Your task to perform on an android device: open app "Facebook Messenger" (install if not already installed) and enter user name: "divorce@inbox.com" and password: "caviar" Image 0: 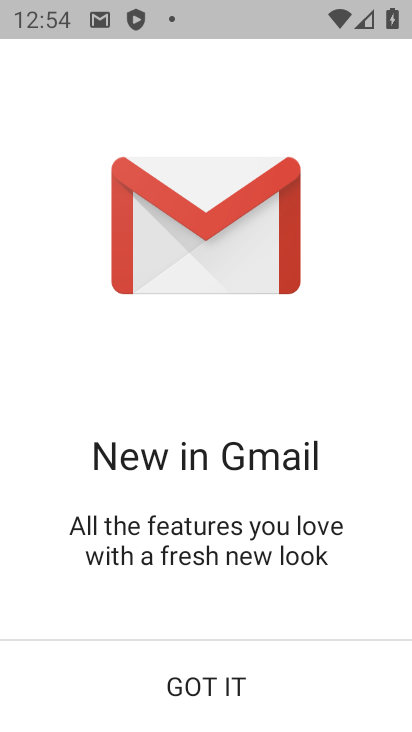
Step 0: press back button
Your task to perform on an android device: open app "Facebook Messenger" (install if not already installed) and enter user name: "divorce@inbox.com" and password: "caviar" Image 1: 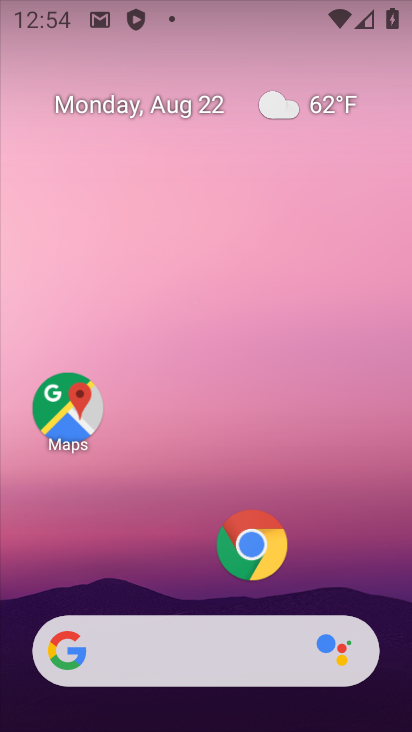
Step 1: drag from (161, 577) to (234, 107)
Your task to perform on an android device: open app "Facebook Messenger" (install if not already installed) and enter user name: "divorce@inbox.com" and password: "caviar" Image 2: 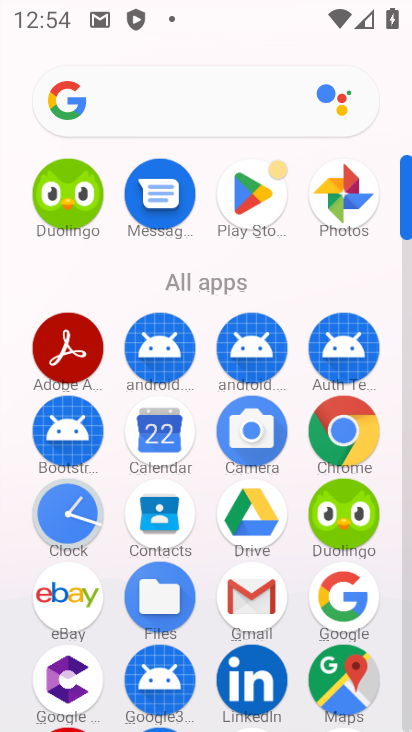
Step 2: click (258, 175)
Your task to perform on an android device: open app "Facebook Messenger" (install if not already installed) and enter user name: "divorce@inbox.com" and password: "caviar" Image 3: 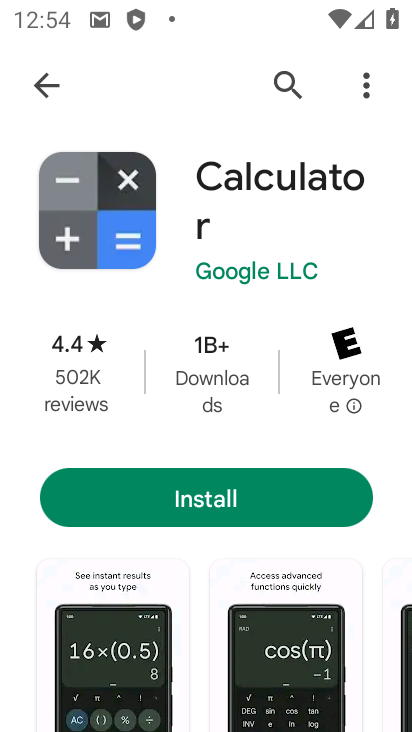
Step 3: click (293, 88)
Your task to perform on an android device: open app "Facebook Messenger" (install if not already installed) and enter user name: "divorce@inbox.com" and password: "caviar" Image 4: 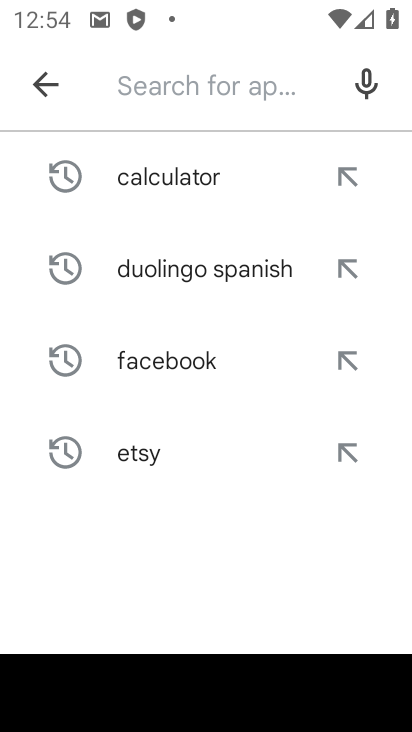
Step 4: click (168, 89)
Your task to perform on an android device: open app "Facebook Messenger" (install if not already installed) and enter user name: "divorce@inbox.com" and password: "caviar" Image 5: 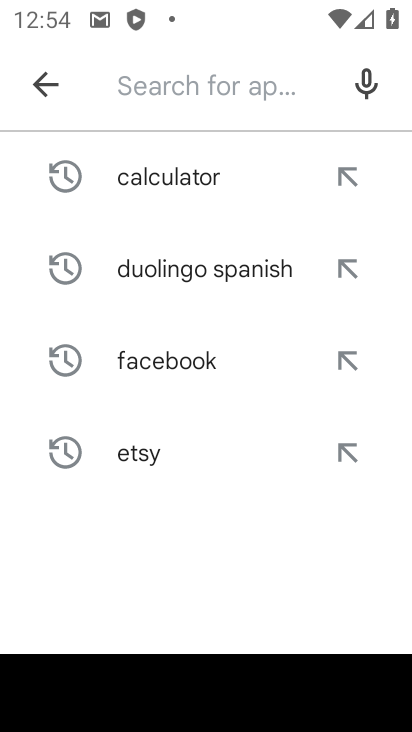
Step 5: type "Facebook Messenger"
Your task to perform on an android device: open app "Facebook Messenger" (install if not already installed) and enter user name: "divorce@inbox.com" and password: "caviar" Image 6: 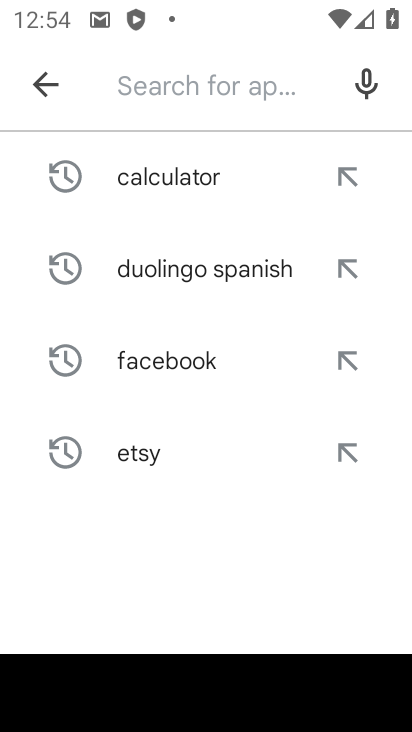
Step 6: click (134, 611)
Your task to perform on an android device: open app "Facebook Messenger" (install if not already installed) and enter user name: "divorce@inbox.com" and password: "caviar" Image 7: 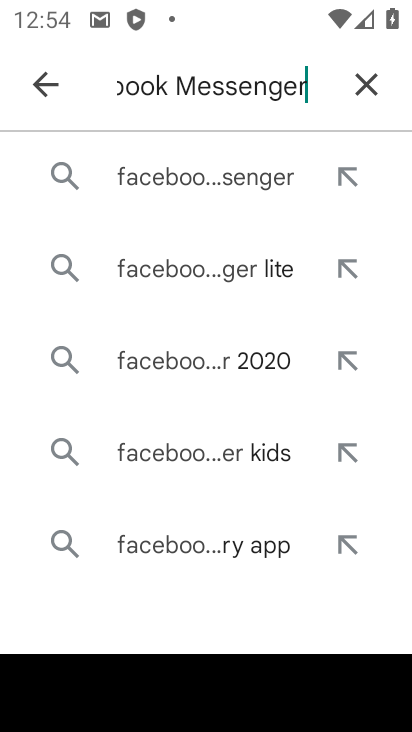
Step 7: click (182, 165)
Your task to perform on an android device: open app "Facebook Messenger" (install if not already installed) and enter user name: "divorce@inbox.com" and password: "caviar" Image 8: 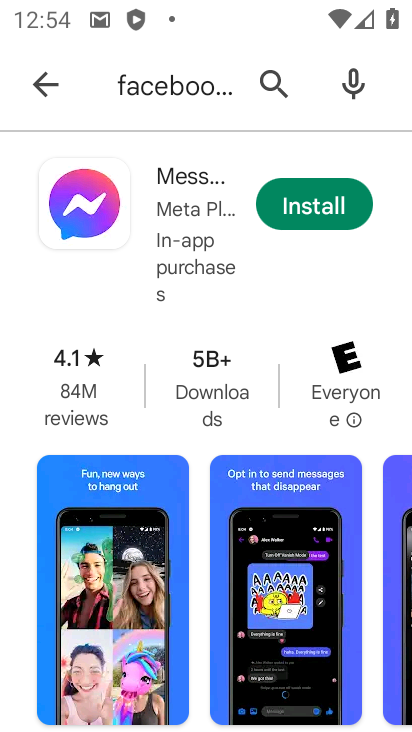
Step 8: click (347, 213)
Your task to perform on an android device: open app "Facebook Messenger" (install if not already installed) and enter user name: "divorce@inbox.com" and password: "caviar" Image 9: 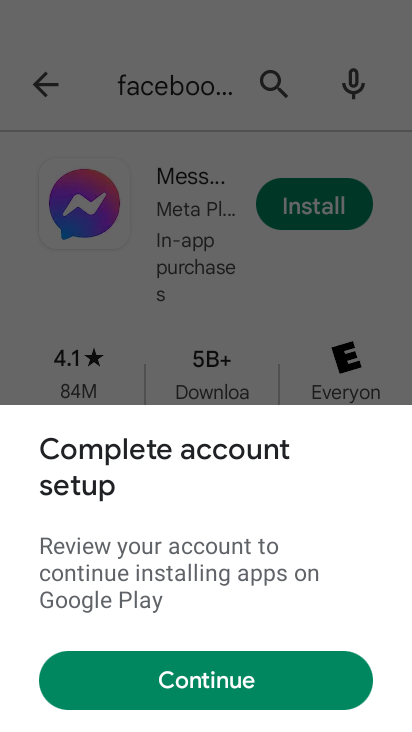
Step 9: click (208, 673)
Your task to perform on an android device: open app "Facebook Messenger" (install if not already installed) and enter user name: "divorce@inbox.com" and password: "caviar" Image 10: 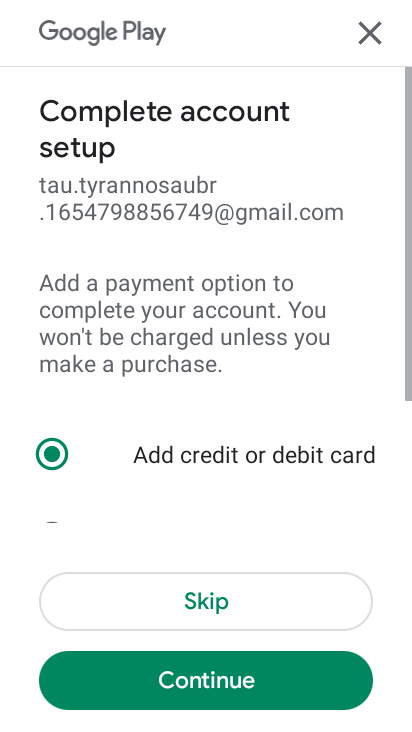
Step 10: click (169, 582)
Your task to perform on an android device: open app "Facebook Messenger" (install if not already installed) and enter user name: "divorce@inbox.com" and password: "caviar" Image 11: 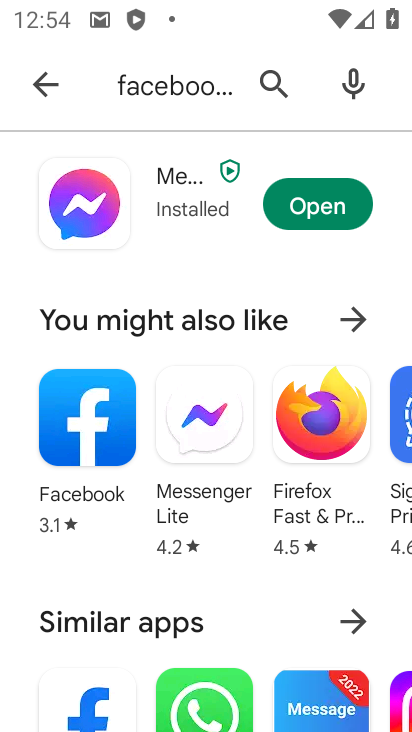
Step 11: click (311, 209)
Your task to perform on an android device: open app "Facebook Messenger" (install if not already installed) and enter user name: "divorce@inbox.com" and password: "caviar" Image 12: 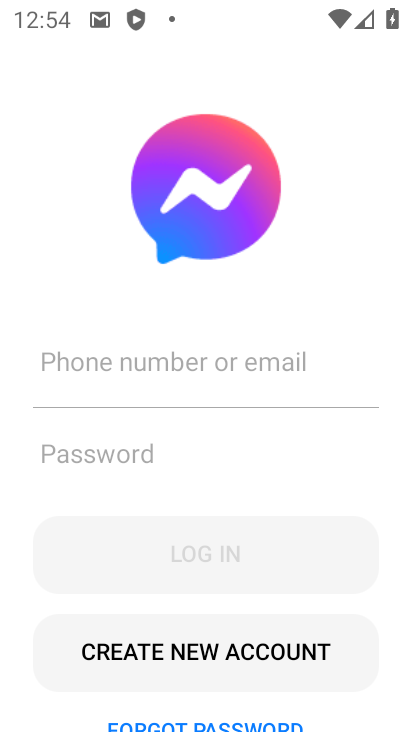
Step 12: click (182, 360)
Your task to perform on an android device: open app "Facebook Messenger" (install if not already installed) and enter user name: "divorce@inbox.com" and password: "caviar" Image 13: 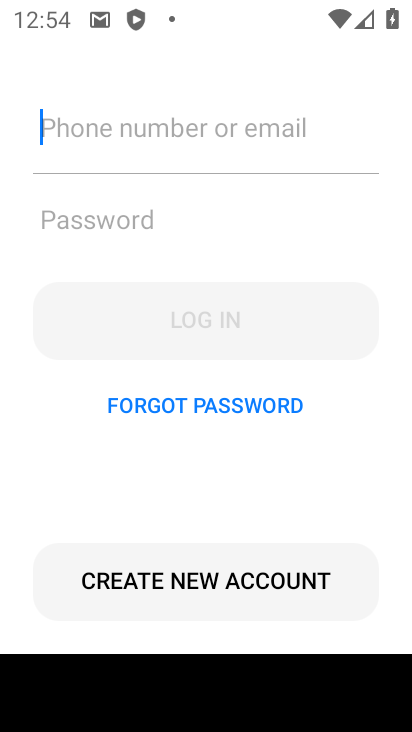
Step 13: type "divorce@inbox.com"
Your task to perform on an android device: open app "Facebook Messenger" (install if not already installed) and enter user name: "divorce@inbox.com" and password: "caviar" Image 14: 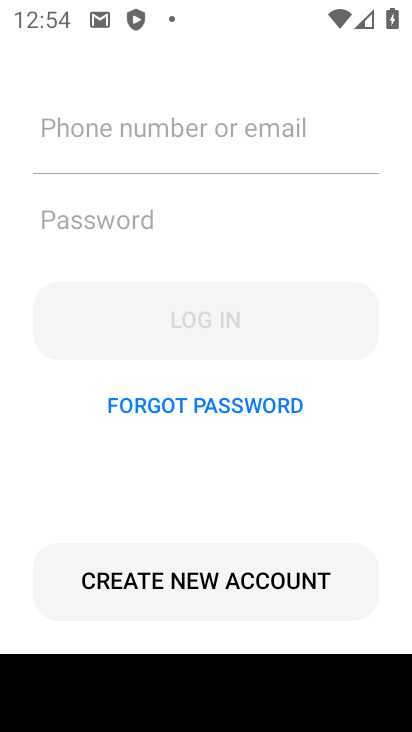
Step 14: click (50, 428)
Your task to perform on an android device: open app "Facebook Messenger" (install if not already installed) and enter user name: "divorce@inbox.com" and password: "caviar" Image 15: 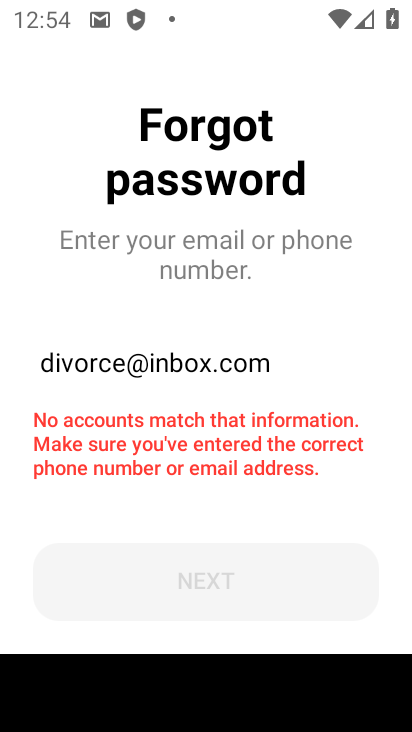
Step 15: task complete